Your task to perform on an android device: turn off picture-in-picture Image 0: 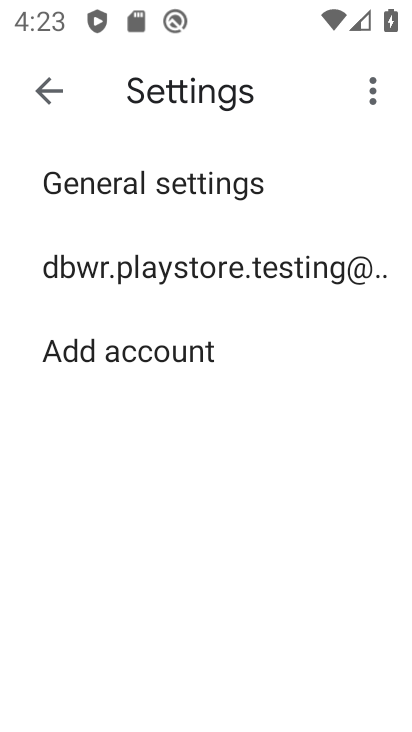
Step 0: press home button
Your task to perform on an android device: turn off picture-in-picture Image 1: 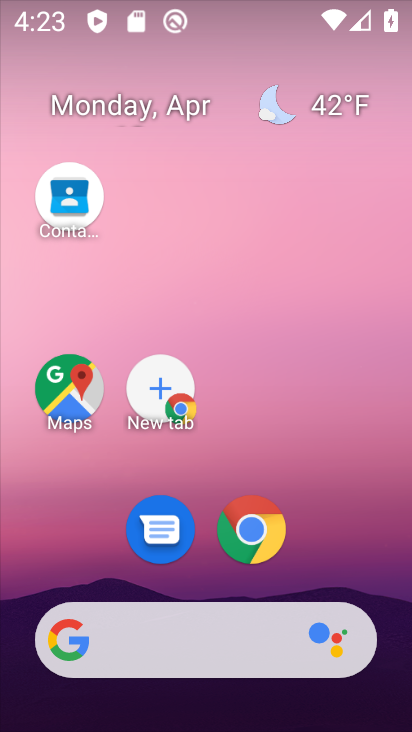
Step 1: drag from (193, 496) to (325, 0)
Your task to perform on an android device: turn off picture-in-picture Image 2: 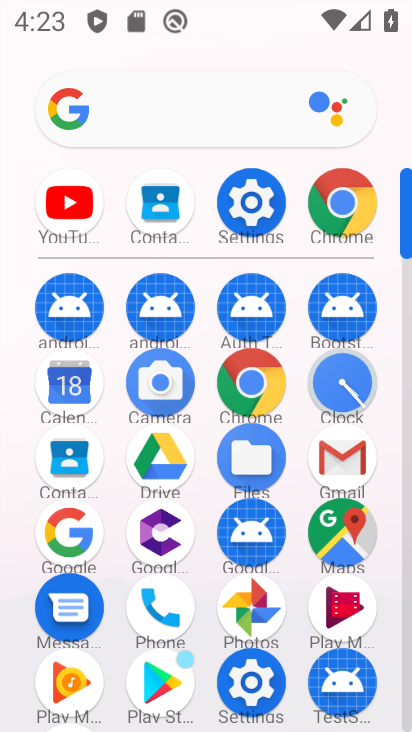
Step 2: click (253, 241)
Your task to perform on an android device: turn off picture-in-picture Image 3: 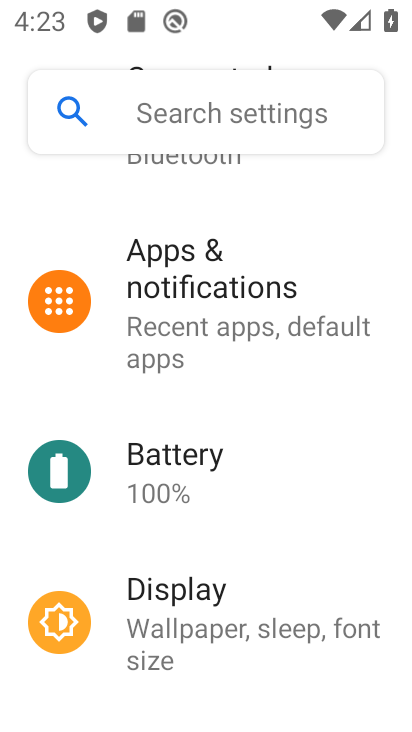
Step 3: drag from (181, 570) to (352, 126)
Your task to perform on an android device: turn off picture-in-picture Image 4: 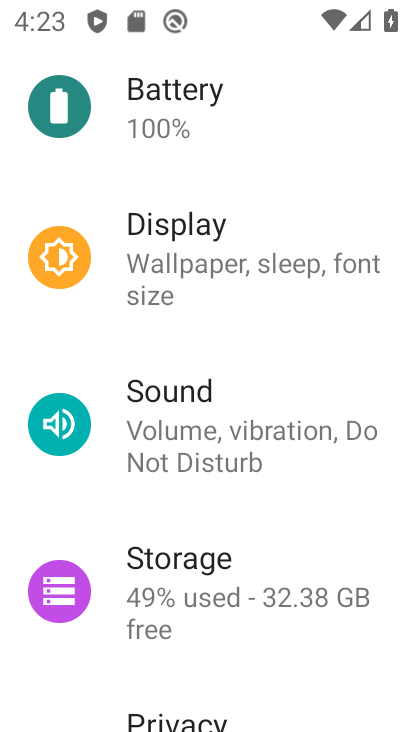
Step 4: drag from (141, 658) to (237, 72)
Your task to perform on an android device: turn off picture-in-picture Image 5: 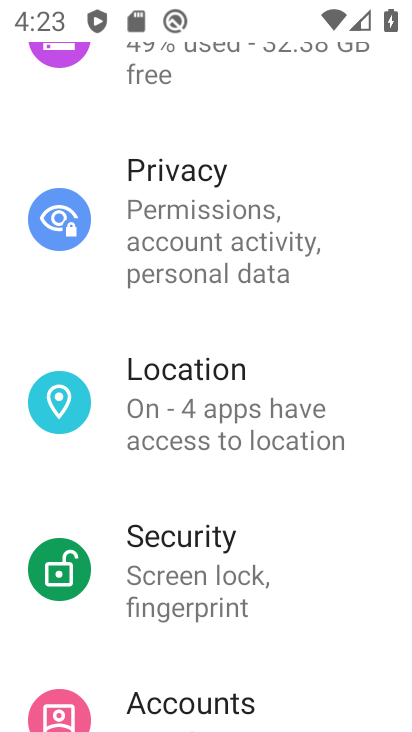
Step 5: drag from (155, 619) to (298, 106)
Your task to perform on an android device: turn off picture-in-picture Image 6: 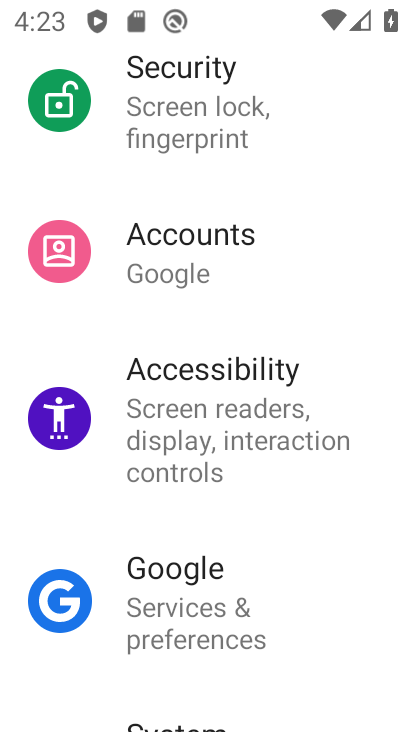
Step 6: drag from (180, 601) to (379, 4)
Your task to perform on an android device: turn off picture-in-picture Image 7: 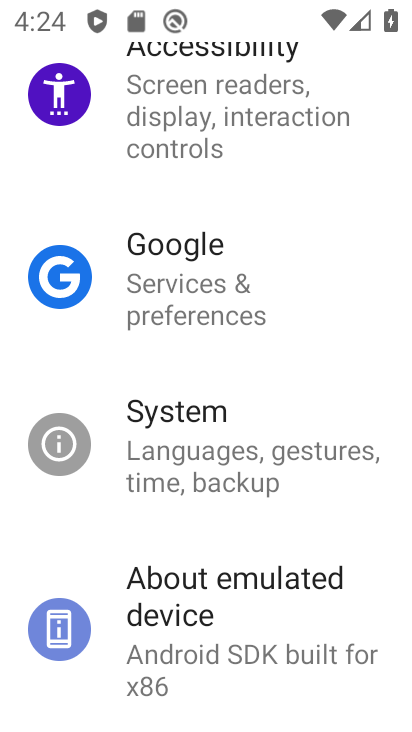
Step 7: drag from (199, 598) to (384, 14)
Your task to perform on an android device: turn off picture-in-picture Image 8: 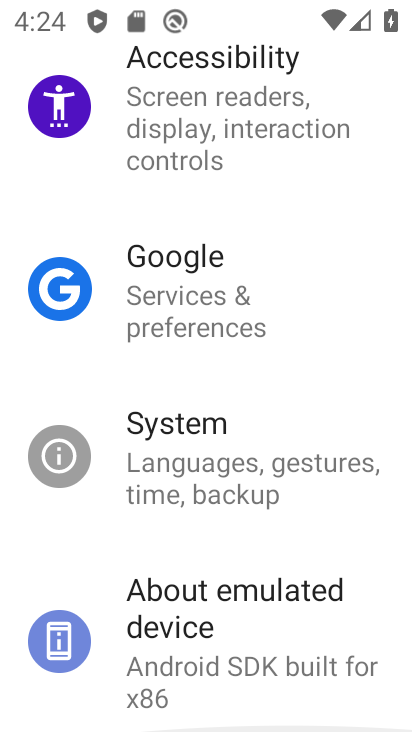
Step 8: drag from (356, 137) to (251, 662)
Your task to perform on an android device: turn off picture-in-picture Image 9: 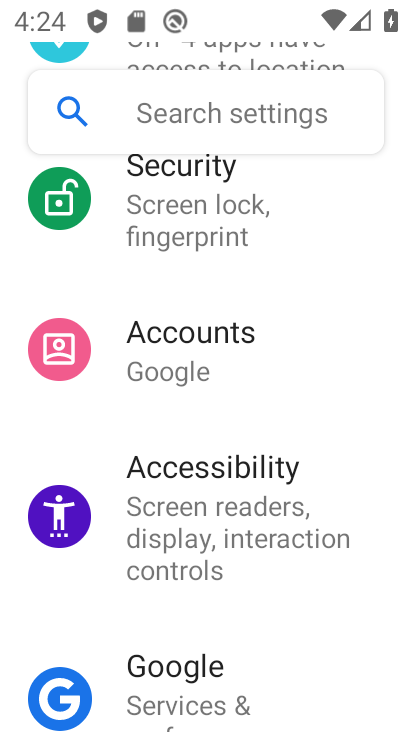
Step 9: drag from (263, 271) to (263, 555)
Your task to perform on an android device: turn off picture-in-picture Image 10: 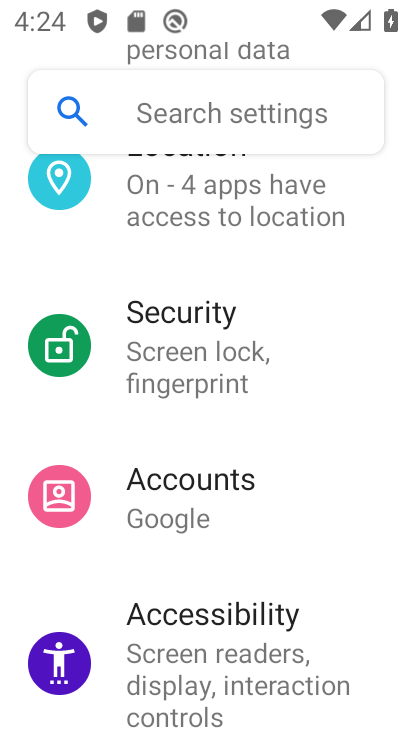
Step 10: drag from (294, 215) to (226, 719)
Your task to perform on an android device: turn off picture-in-picture Image 11: 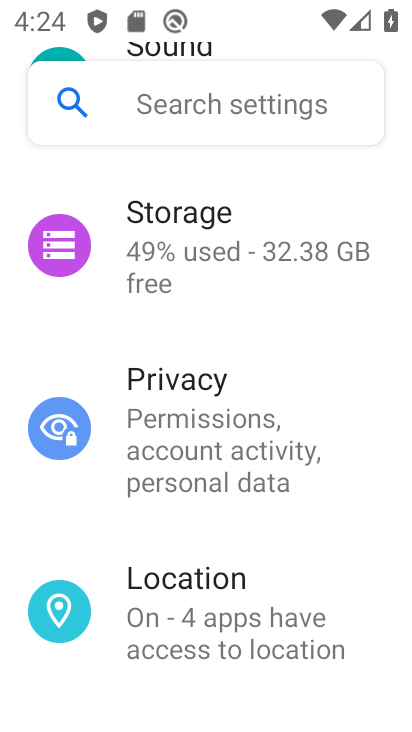
Step 11: drag from (257, 297) to (245, 729)
Your task to perform on an android device: turn off picture-in-picture Image 12: 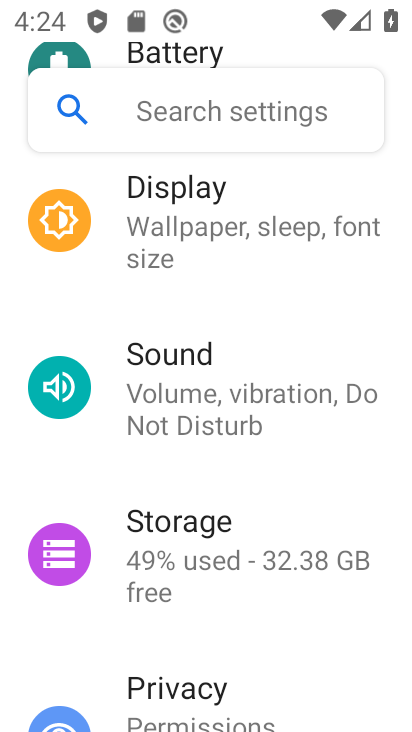
Step 12: drag from (233, 253) to (186, 719)
Your task to perform on an android device: turn off picture-in-picture Image 13: 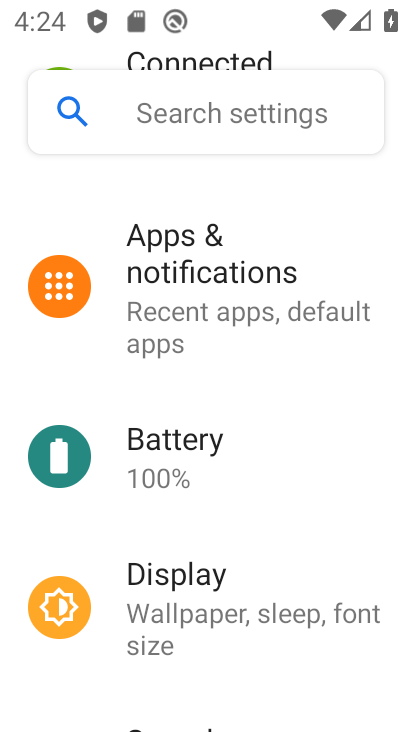
Step 13: click (177, 280)
Your task to perform on an android device: turn off picture-in-picture Image 14: 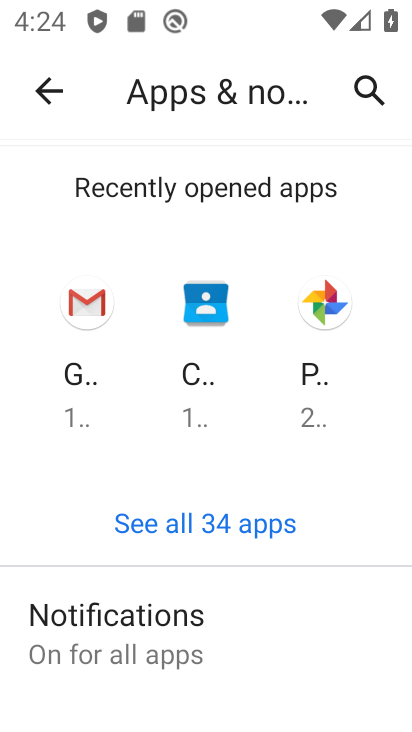
Step 14: drag from (149, 650) to (334, 128)
Your task to perform on an android device: turn off picture-in-picture Image 15: 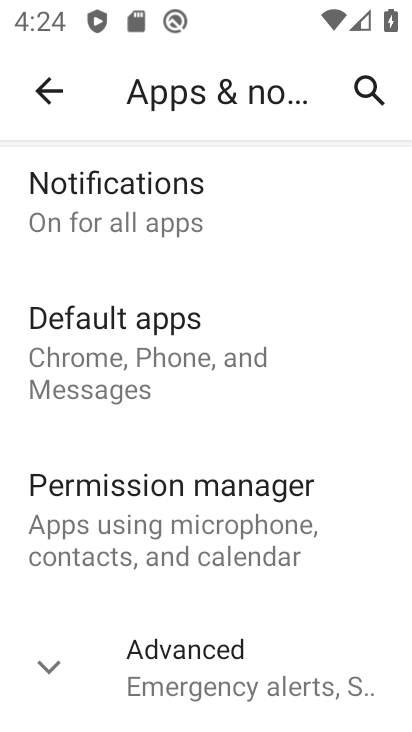
Step 15: drag from (187, 600) to (310, 129)
Your task to perform on an android device: turn off picture-in-picture Image 16: 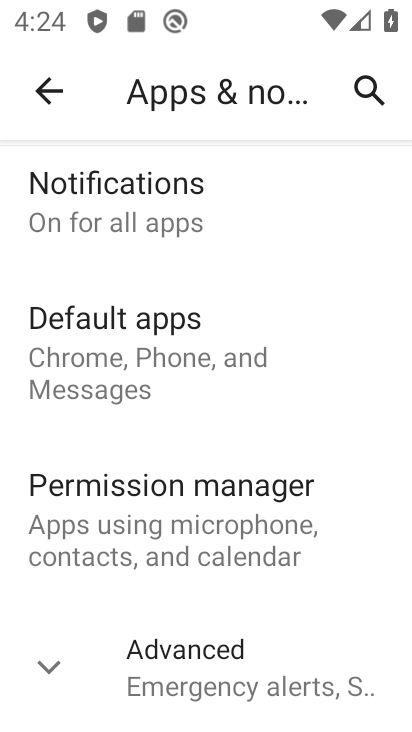
Step 16: click (198, 668)
Your task to perform on an android device: turn off picture-in-picture Image 17: 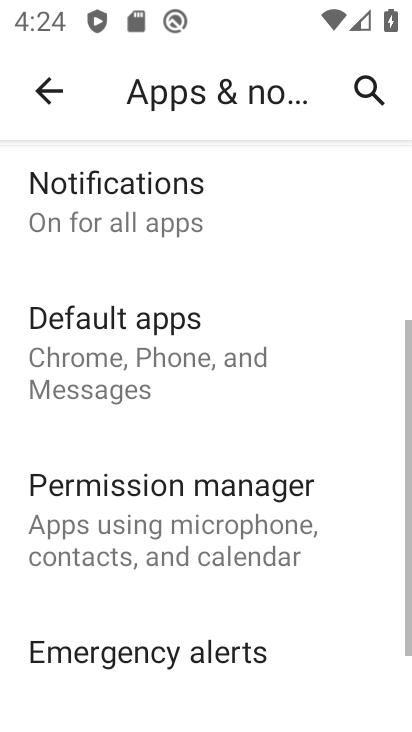
Step 17: drag from (166, 691) to (334, 80)
Your task to perform on an android device: turn off picture-in-picture Image 18: 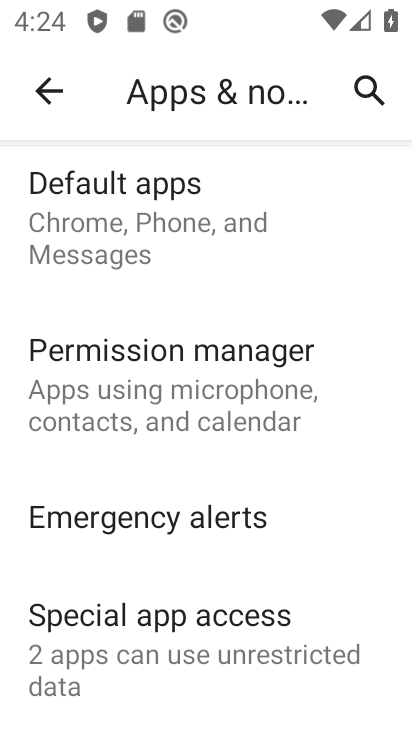
Step 18: click (169, 610)
Your task to perform on an android device: turn off picture-in-picture Image 19: 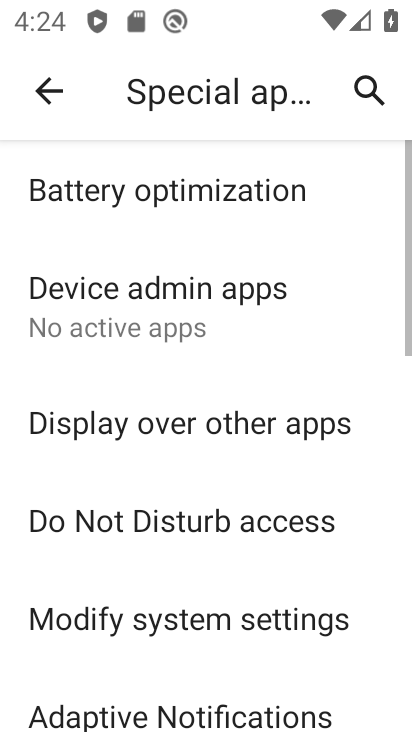
Step 19: drag from (164, 564) to (302, 10)
Your task to perform on an android device: turn off picture-in-picture Image 20: 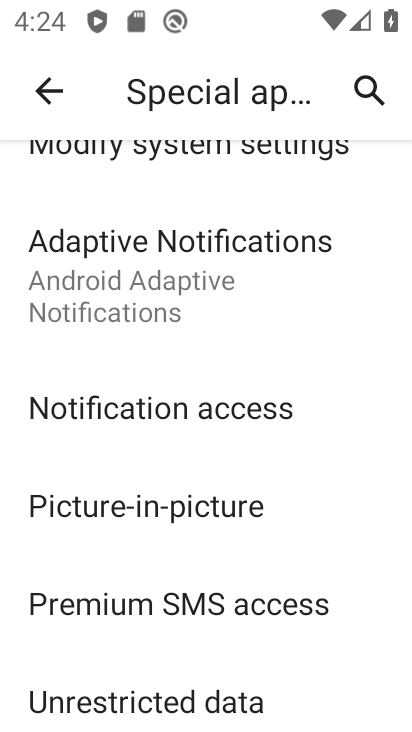
Step 20: click (135, 512)
Your task to perform on an android device: turn off picture-in-picture Image 21: 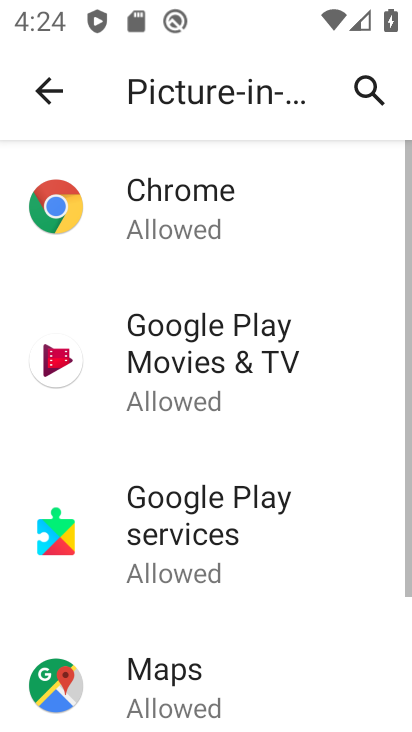
Step 21: click (198, 219)
Your task to perform on an android device: turn off picture-in-picture Image 22: 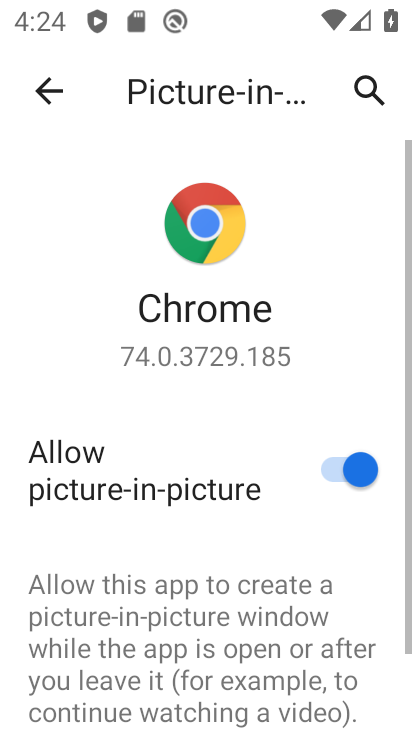
Step 22: click (341, 480)
Your task to perform on an android device: turn off picture-in-picture Image 23: 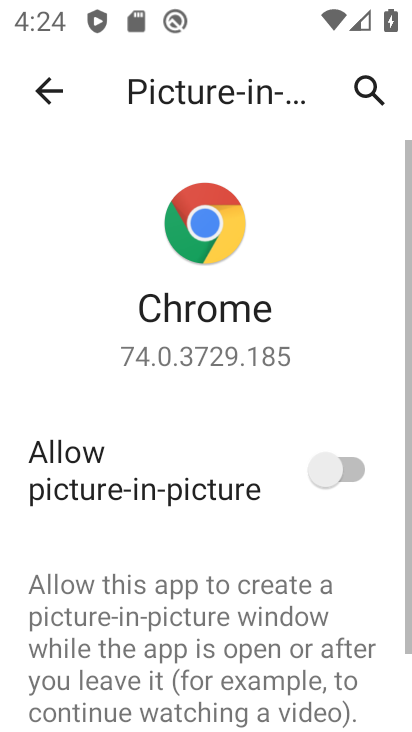
Step 23: task complete